Your task to perform on an android device: star an email in the gmail app Image 0: 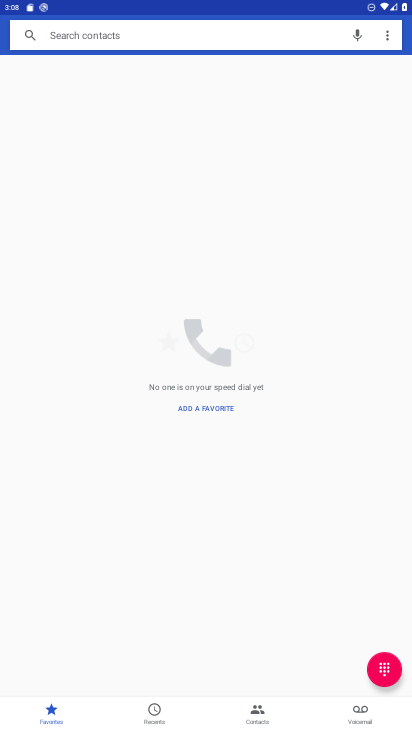
Step 0: press home button
Your task to perform on an android device: star an email in the gmail app Image 1: 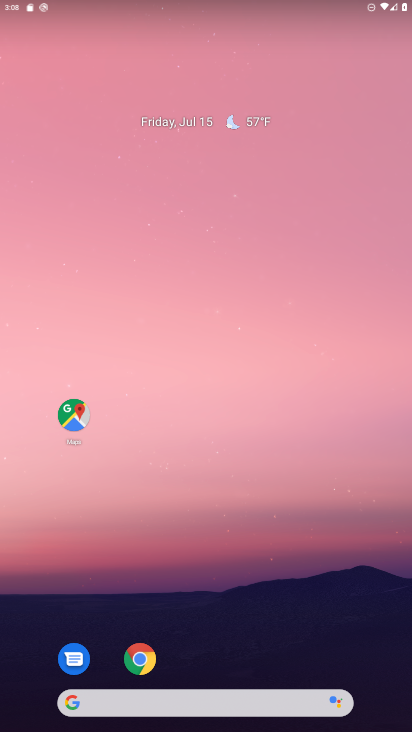
Step 1: drag from (225, 640) to (306, 6)
Your task to perform on an android device: star an email in the gmail app Image 2: 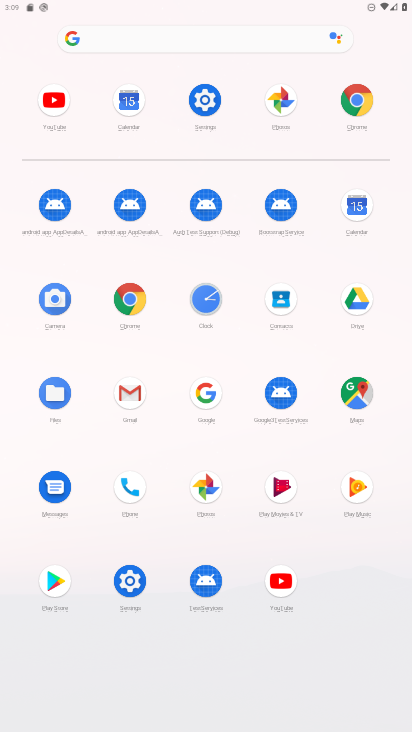
Step 2: click (143, 405)
Your task to perform on an android device: star an email in the gmail app Image 3: 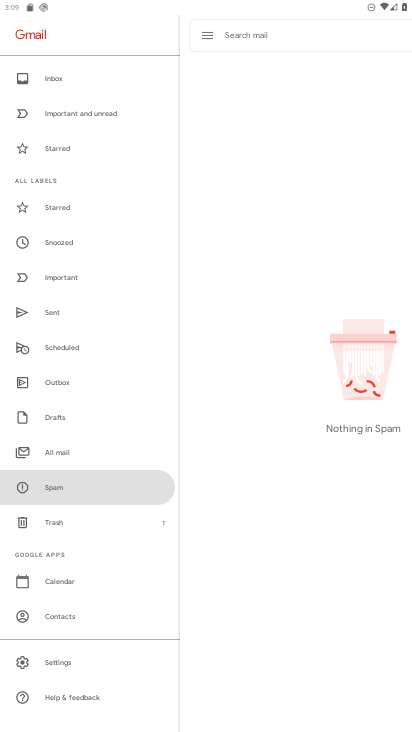
Step 3: click (64, 75)
Your task to perform on an android device: star an email in the gmail app Image 4: 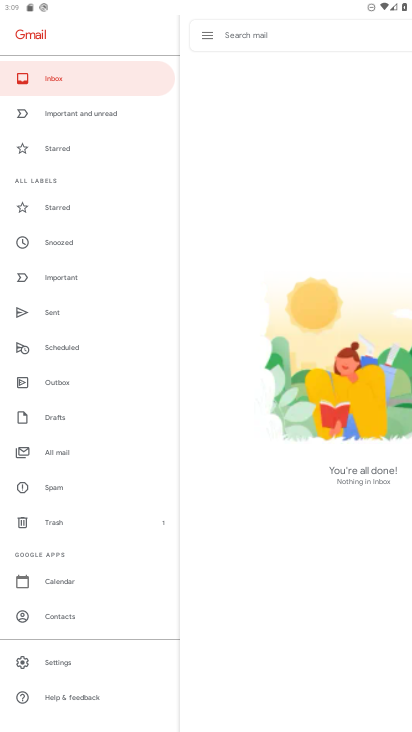
Step 4: task complete